Your task to perform on an android device: open a bookmark in the chrome app Image 0: 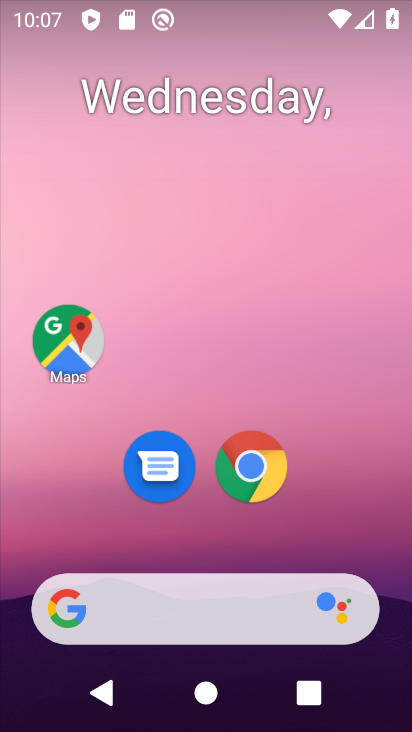
Step 0: click (245, 450)
Your task to perform on an android device: open a bookmark in the chrome app Image 1: 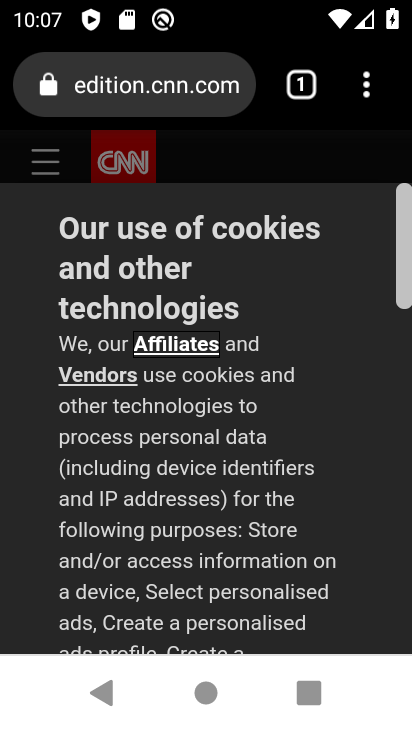
Step 1: click (366, 96)
Your task to perform on an android device: open a bookmark in the chrome app Image 2: 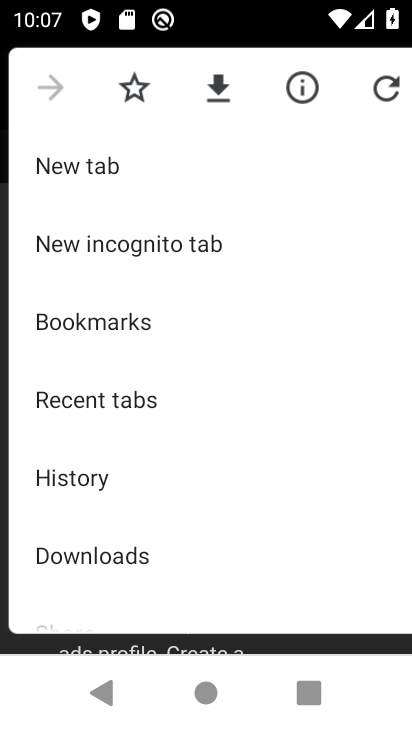
Step 2: click (88, 325)
Your task to perform on an android device: open a bookmark in the chrome app Image 3: 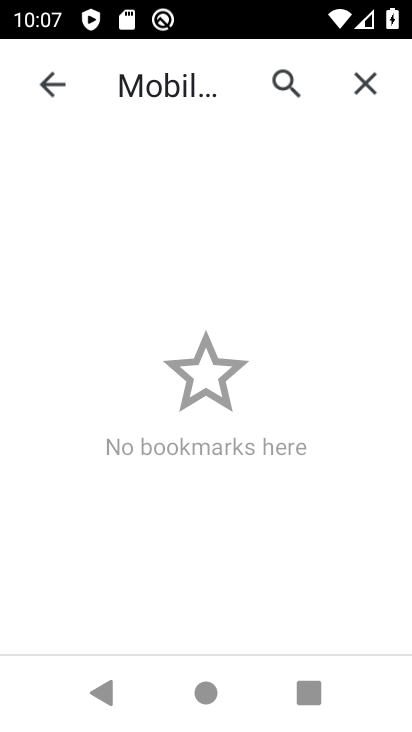
Step 3: task complete